Your task to perform on an android device: turn on airplane mode Image 0: 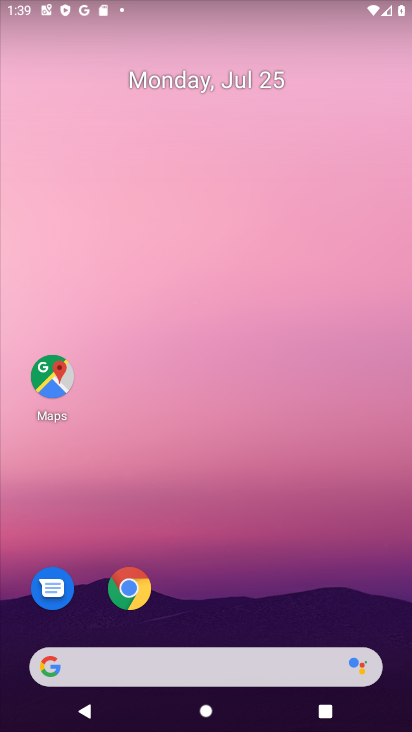
Step 0: drag from (209, 523) to (199, 295)
Your task to perform on an android device: turn on airplane mode Image 1: 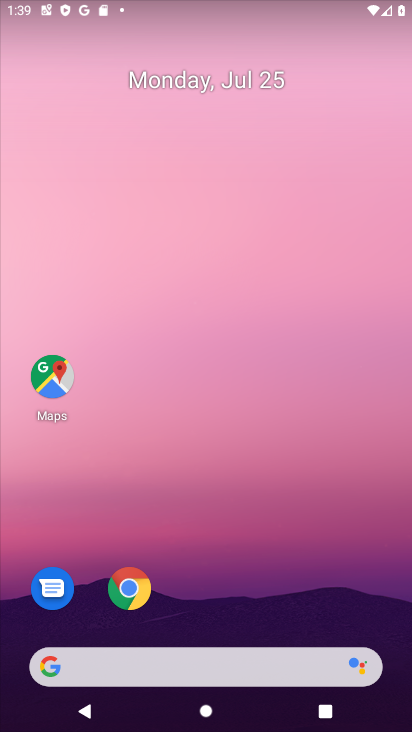
Step 1: drag from (199, 502) to (205, 311)
Your task to perform on an android device: turn on airplane mode Image 2: 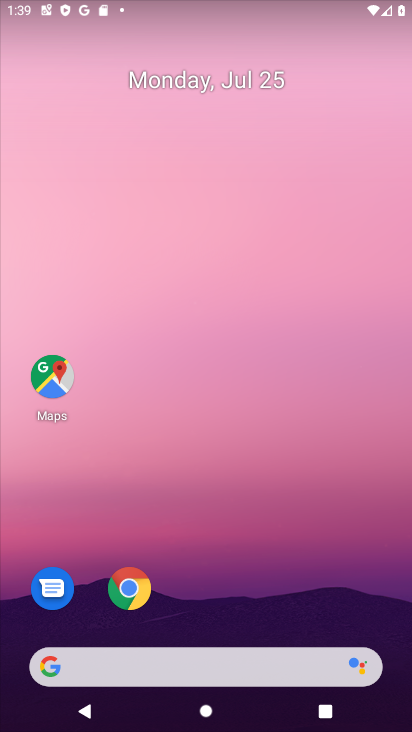
Step 2: drag from (203, 591) to (197, 188)
Your task to perform on an android device: turn on airplane mode Image 3: 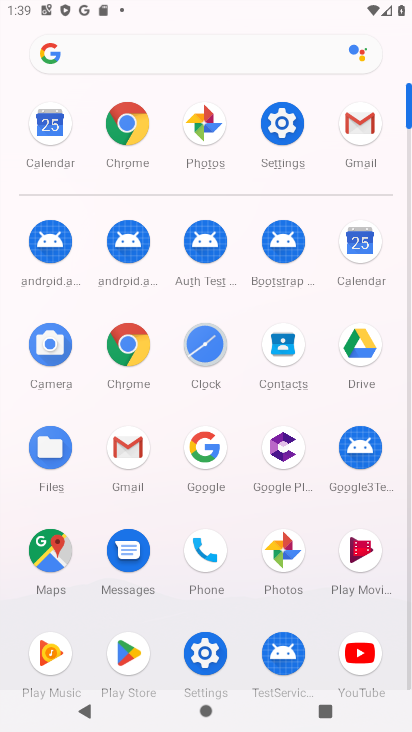
Step 3: click (283, 125)
Your task to perform on an android device: turn on airplane mode Image 4: 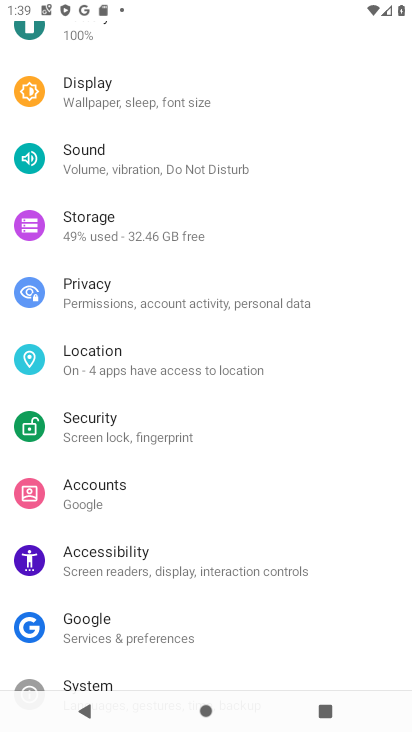
Step 4: drag from (193, 169) to (191, 467)
Your task to perform on an android device: turn on airplane mode Image 5: 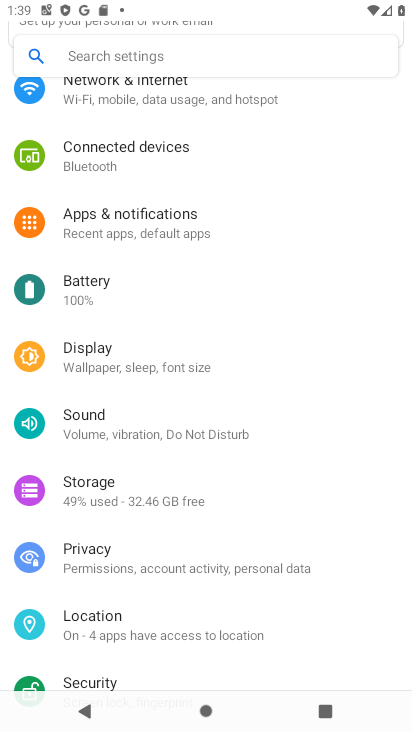
Step 5: click (136, 100)
Your task to perform on an android device: turn on airplane mode Image 6: 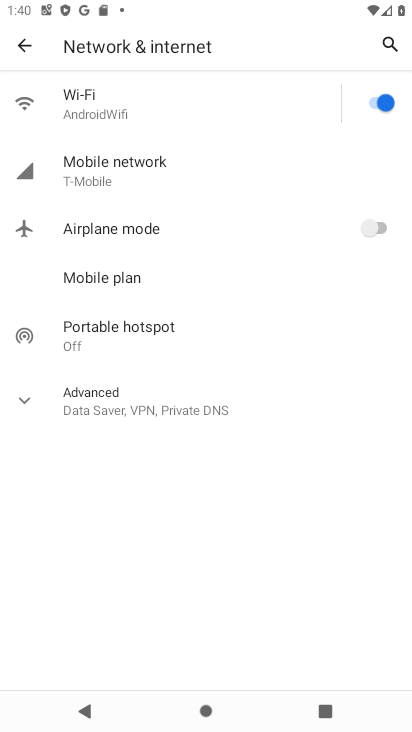
Step 6: click (386, 229)
Your task to perform on an android device: turn on airplane mode Image 7: 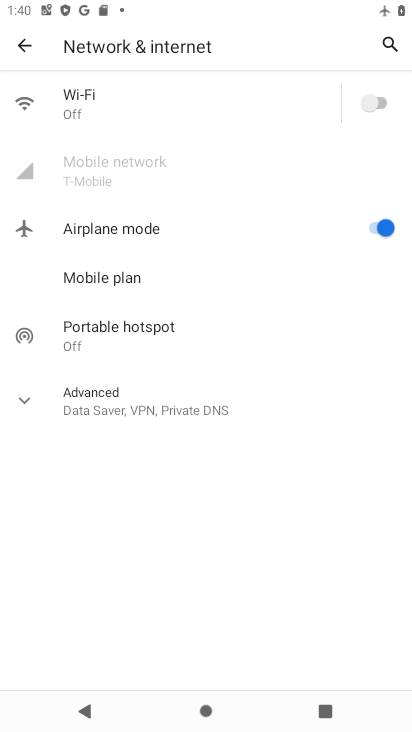
Step 7: task complete